Your task to perform on an android device: Go to internet settings Image 0: 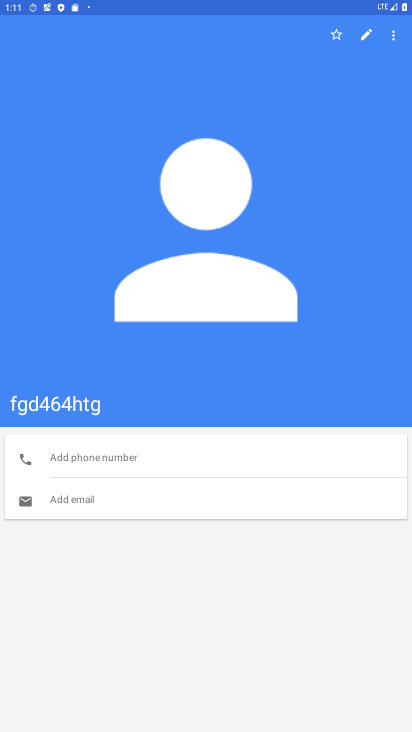
Step 0: press home button
Your task to perform on an android device: Go to internet settings Image 1: 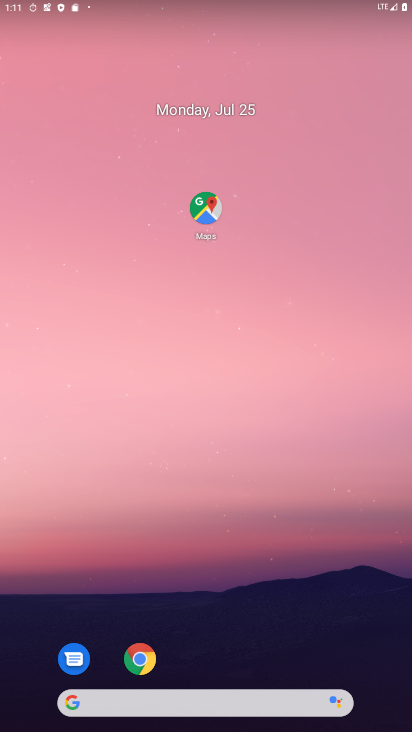
Step 1: drag from (36, 684) to (195, 108)
Your task to perform on an android device: Go to internet settings Image 2: 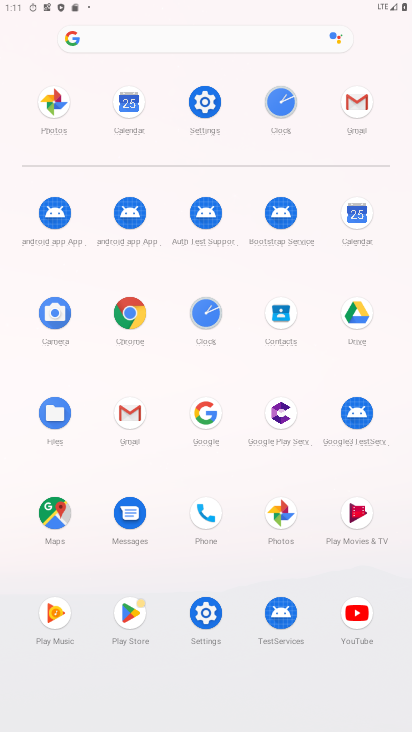
Step 2: click (205, 613)
Your task to perform on an android device: Go to internet settings Image 3: 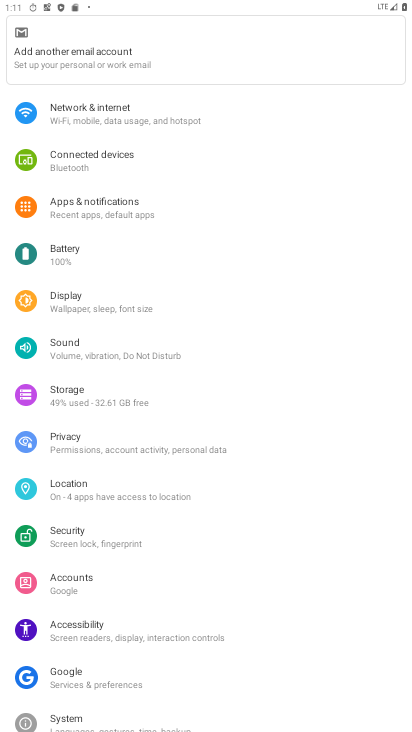
Step 3: click (110, 120)
Your task to perform on an android device: Go to internet settings Image 4: 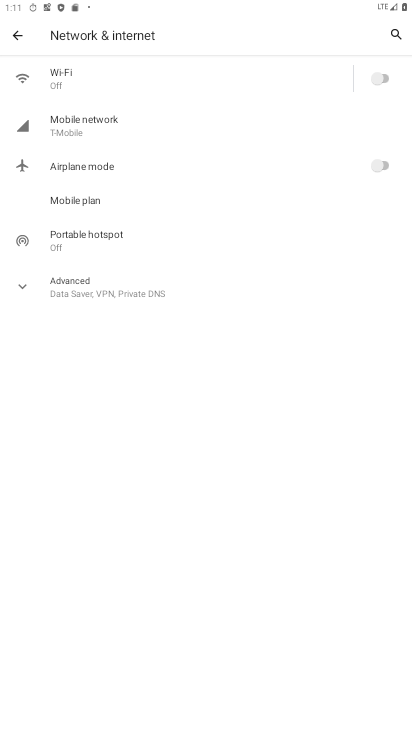
Step 4: task complete